Your task to perform on an android device: allow cookies in the chrome app Image 0: 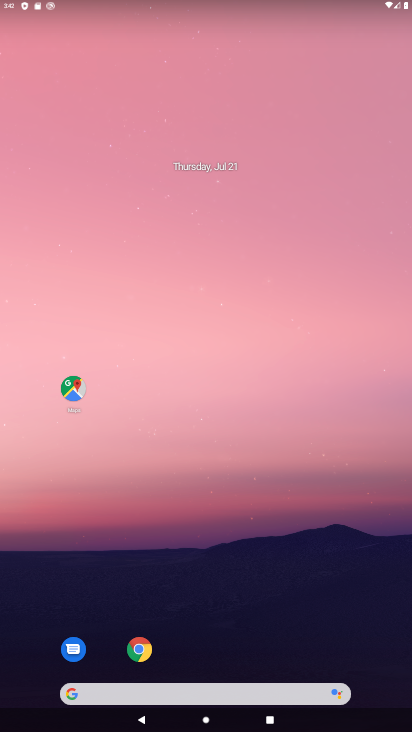
Step 0: click (137, 649)
Your task to perform on an android device: allow cookies in the chrome app Image 1: 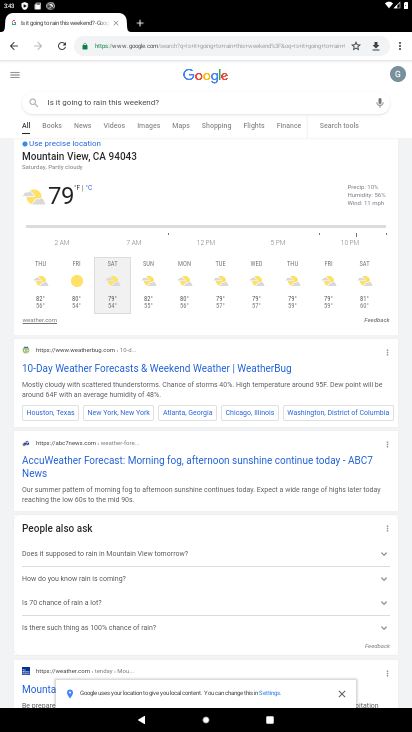
Step 1: click (400, 47)
Your task to perform on an android device: allow cookies in the chrome app Image 2: 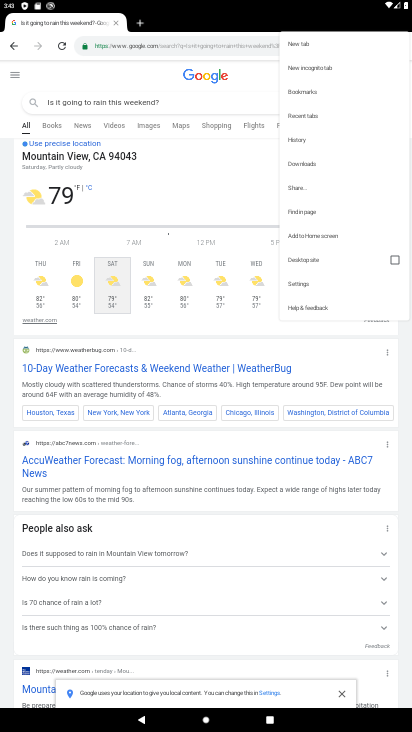
Step 2: click (303, 286)
Your task to perform on an android device: allow cookies in the chrome app Image 3: 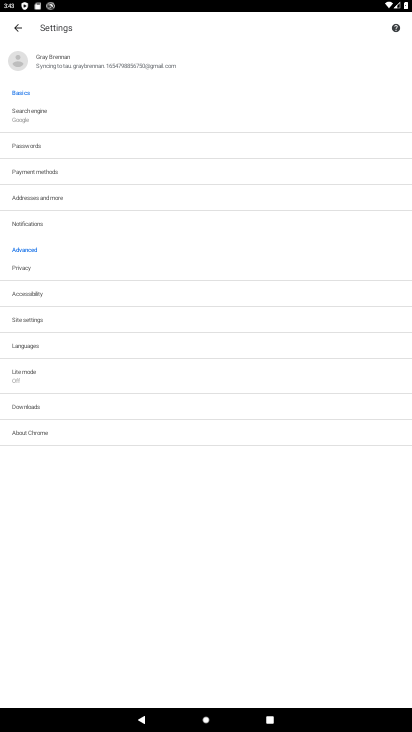
Step 3: click (28, 318)
Your task to perform on an android device: allow cookies in the chrome app Image 4: 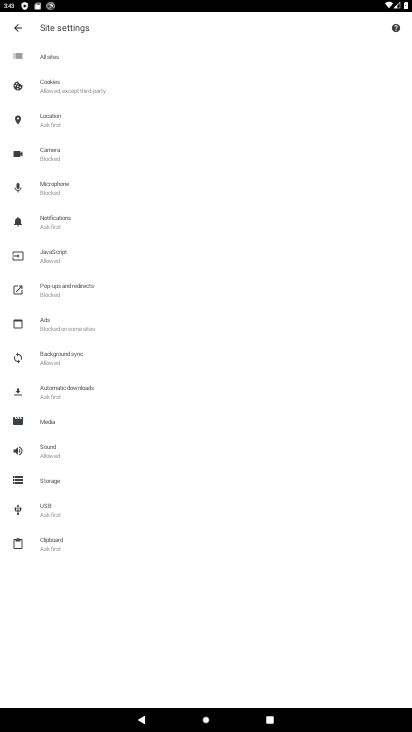
Step 4: click (77, 93)
Your task to perform on an android device: allow cookies in the chrome app Image 5: 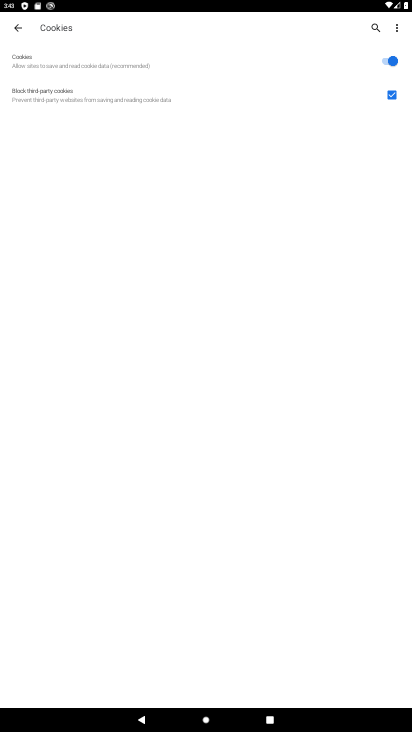
Step 5: task complete